Your task to perform on an android device: turn vacation reply on in the gmail app Image 0: 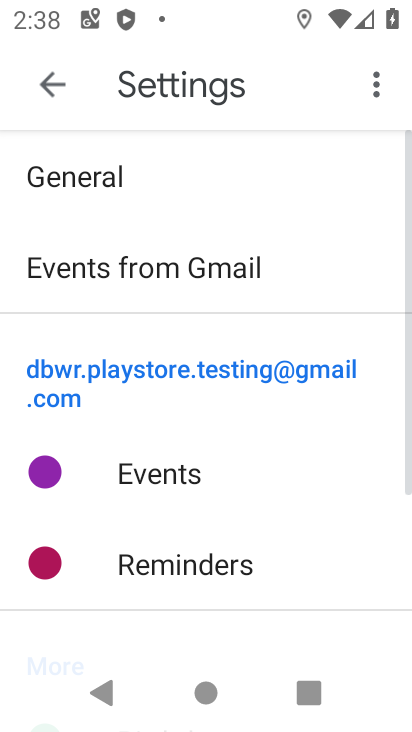
Step 0: click (50, 73)
Your task to perform on an android device: turn vacation reply on in the gmail app Image 1: 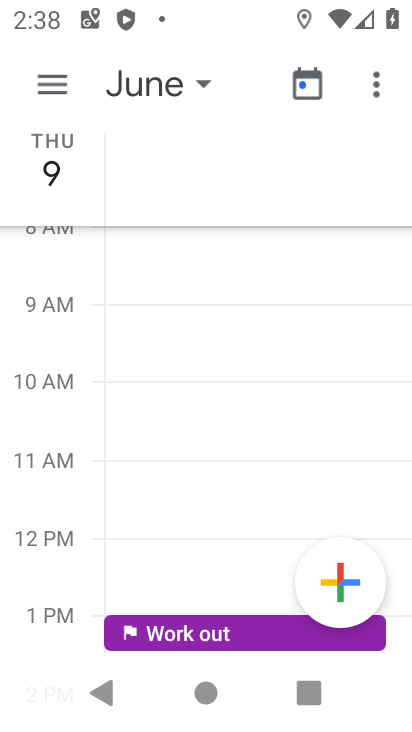
Step 1: press back button
Your task to perform on an android device: turn vacation reply on in the gmail app Image 2: 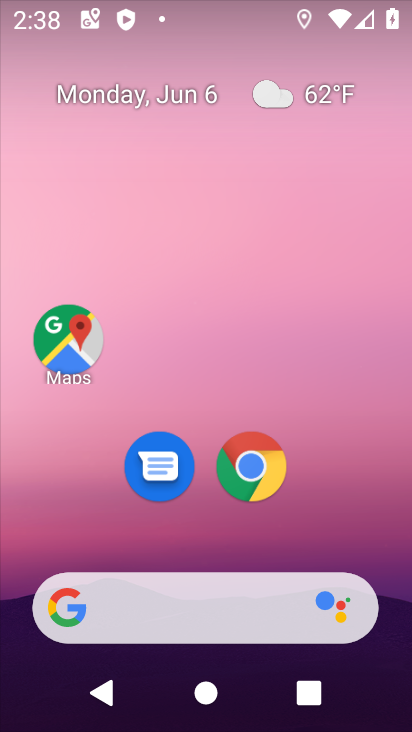
Step 2: drag from (255, 681) to (249, 84)
Your task to perform on an android device: turn vacation reply on in the gmail app Image 3: 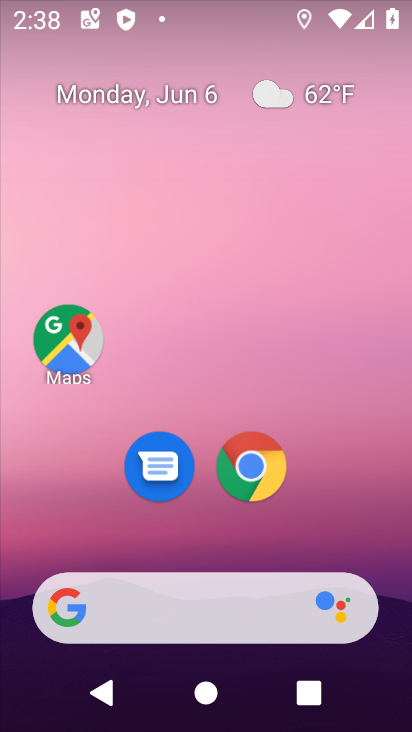
Step 3: drag from (270, 660) to (154, 142)
Your task to perform on an android device: turn vacation reply on in the gmail app Image 4: 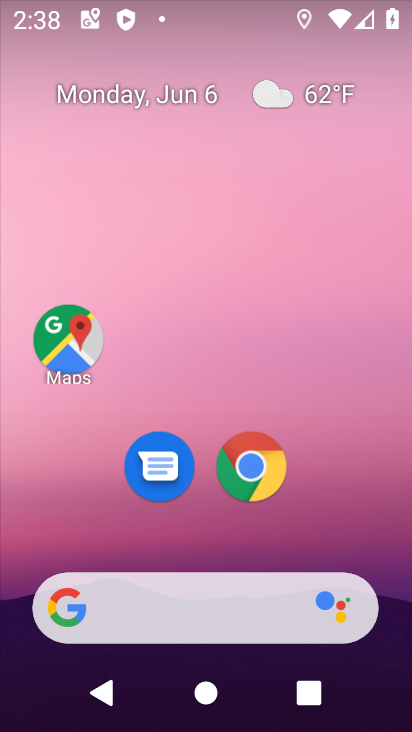
Step 4: drag from (253, 679) to (154, 110)
Your task to perform on an android device: turn vacation reply on in the gmail app Image 5: 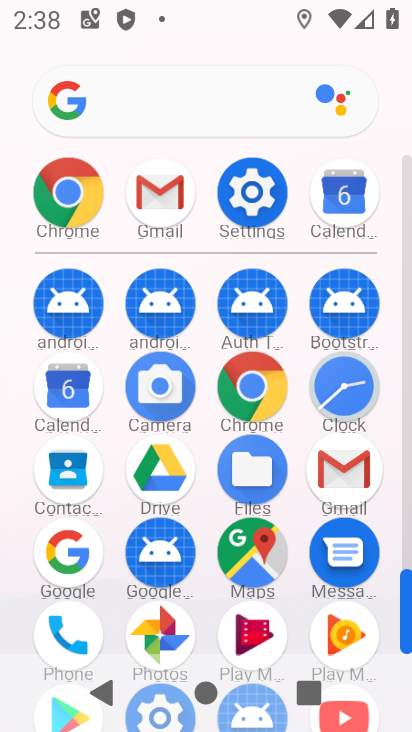
Step 5: click (140, 203)
Your task to perform on an android device: turn vacation reply on in the gmail app Image 6: 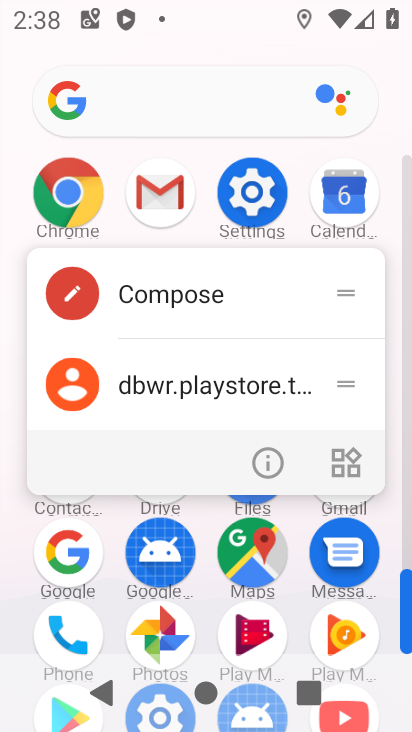
Step 6: click (158, 392)
Your task to perform on an android device: turn vacation reply on in the gmail app Image 7: 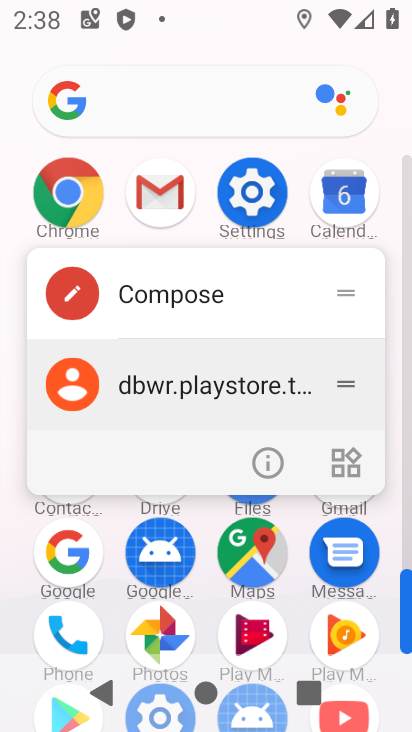
Step 7: click (159, 389)
Your task to perform on an android device: turn vacation reply on in the gmail app Image 8: 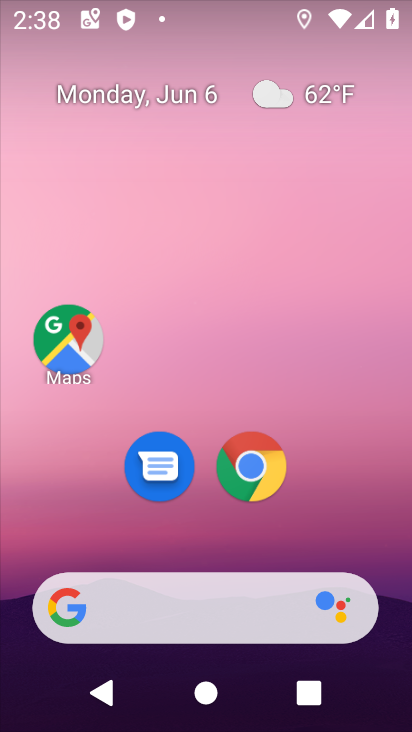
Step 8: drag from (257, 675) to (164, 77)
Your task to perform on an android device: turn vacation reply on in the gmail app Image 9: 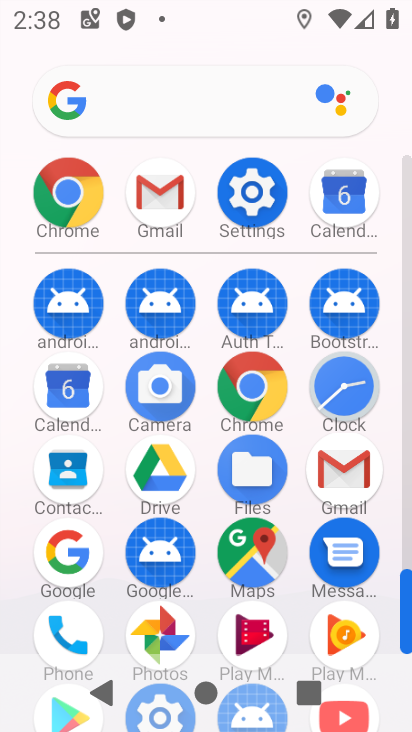
Step 9: click (149, 199)
Your task to perform on an android device: turn vacation reply on in the gmail app Image 10: 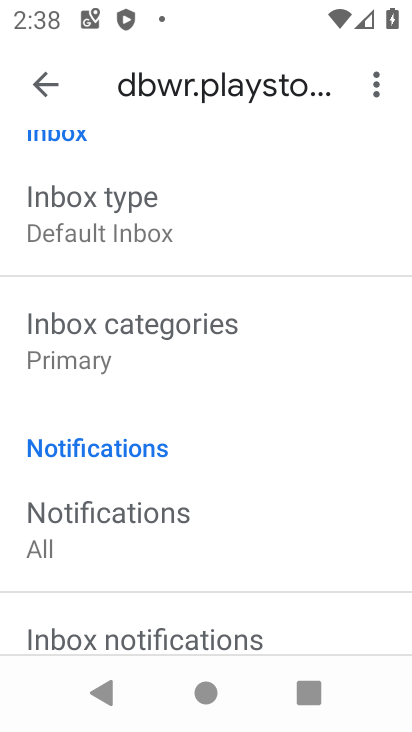
Step 10: drag from (182, 568) to (106, 28)
Your task to perform on an android device: turn vacation reply on in the gmail app Image 11: 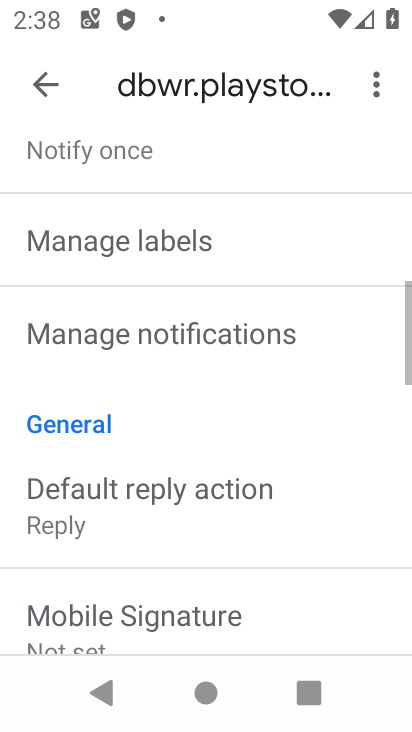
Step 11: drag from (143, 446) to (100, 123)
Your task to perform on an android device: turn vacation reply on in the gmail app Image 12: 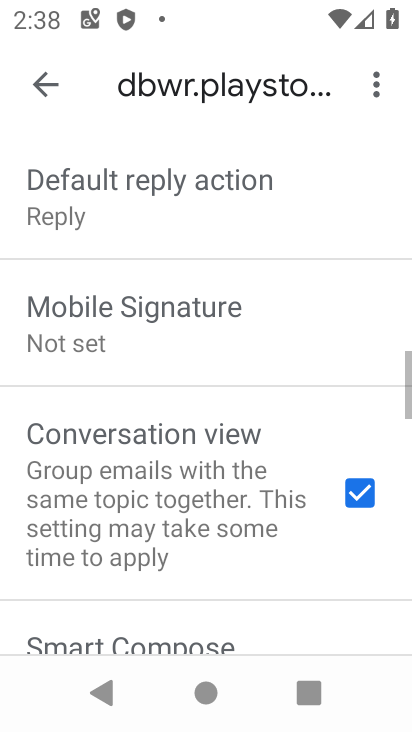
Step 12: drag from (134, 401) to (137, 170)
Your task to perform on an android device: turn vacation reply on in the gmail app Image 13: 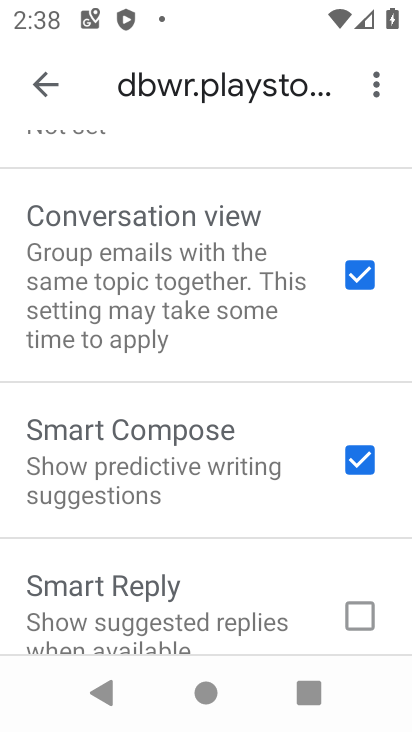
Step 13: drag from (149, 405) to (116, 155)
Your task to perform on an android device: turn vacation reply on in the gmail app Image 14: 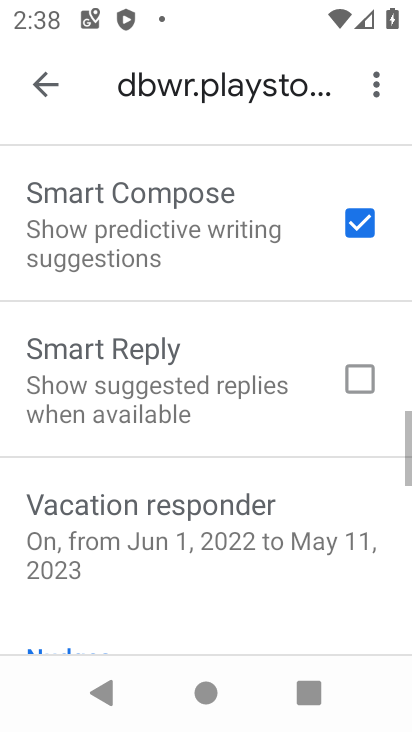
Step 14: drag from (184, 430) to (130, 66)
Your task to perform on an android device: turn vacation reply on in the gmail app Image 15: 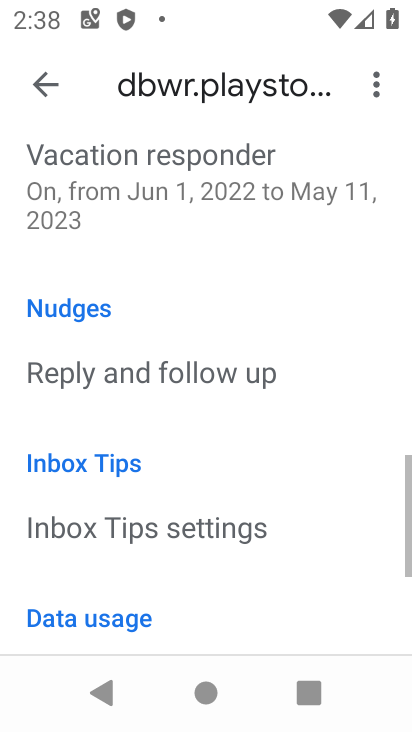
Step 15: drag from (161, 669) to (134, 274)
Your task to perform on an android device: turn vacation reply on in the gmail app Image 16: 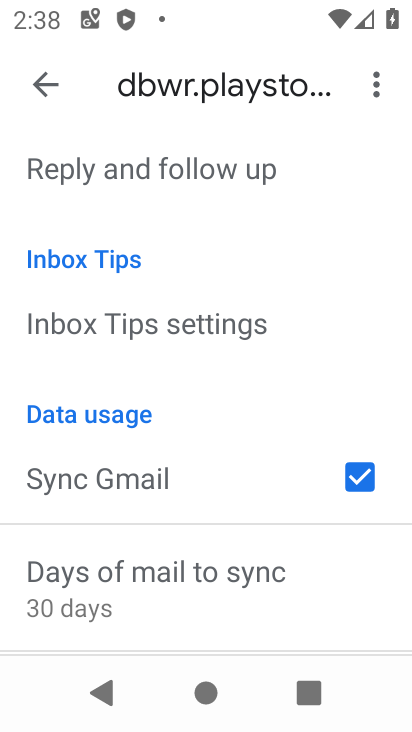
Step 16: drag from (167, 462) to (94, 109)
Your task to perform on an android device: turn vacation reply on in the gmail app Image 17: 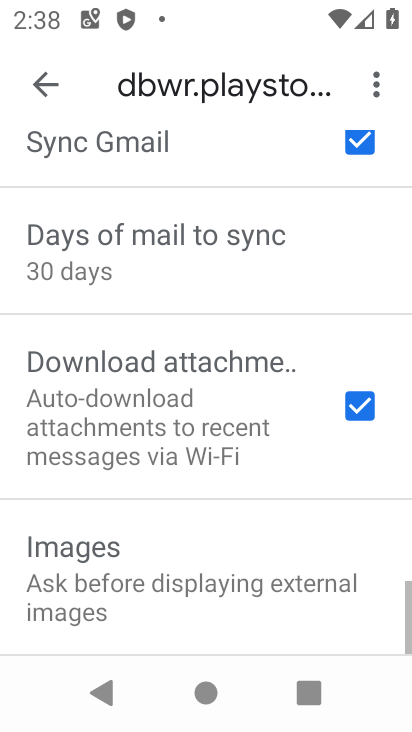
Step 17: drag from (178, 445) to (169, 266)
Your task to perform on an android device: turn vacation reply on in the gmail app Image 18: 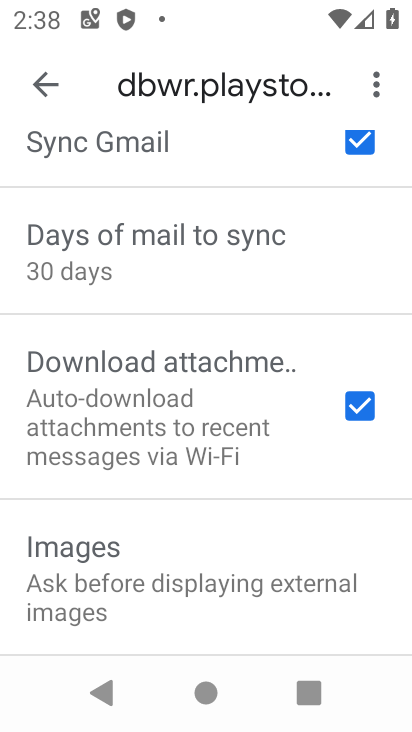
Step 18: drag from (201, 599) to (152, 235)
Your task to perform on an android device: turn vacation reply on in the gmail app Image 19: 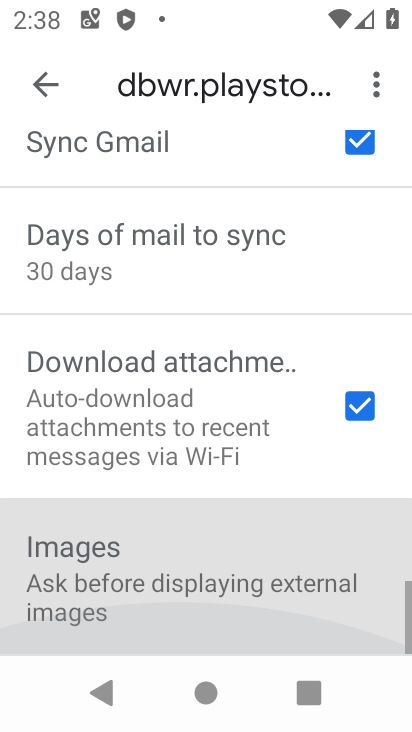
Step 19: drag from (191, 563) to (162, 255)
Your task to perform on an android device: turn vacation reply on in the gmail app Image 20: 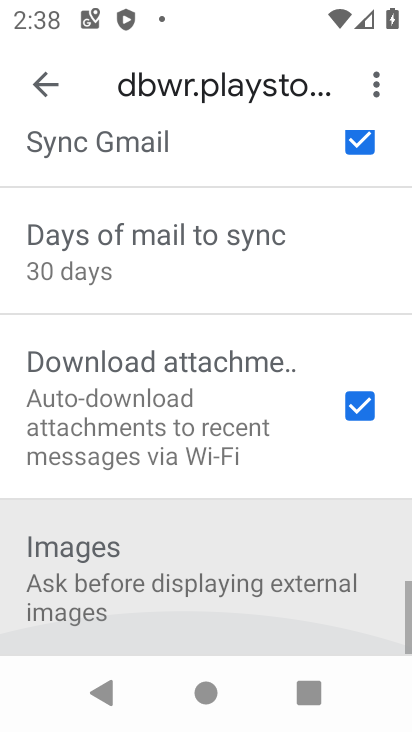
Step 20: drag from (164, 274) to (207, 613)
Your task to perform on an android device: turn vacation reply on in the gmail app Image 21: 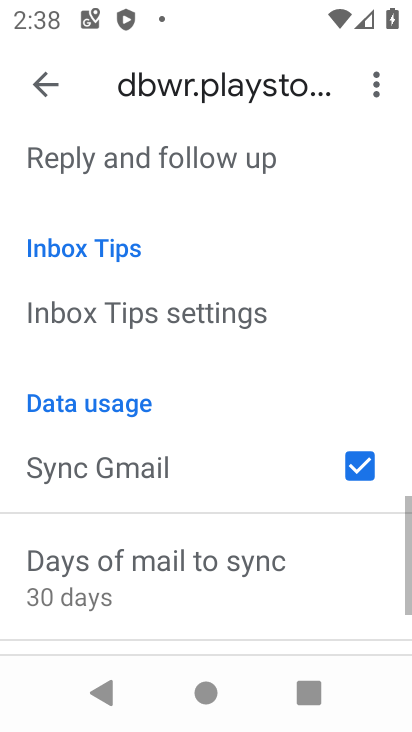
Step 21: drag from (128, 297) to (188, 526)
Your task to perform on an android device: turn vacation reply on in the gmail app Image 22: 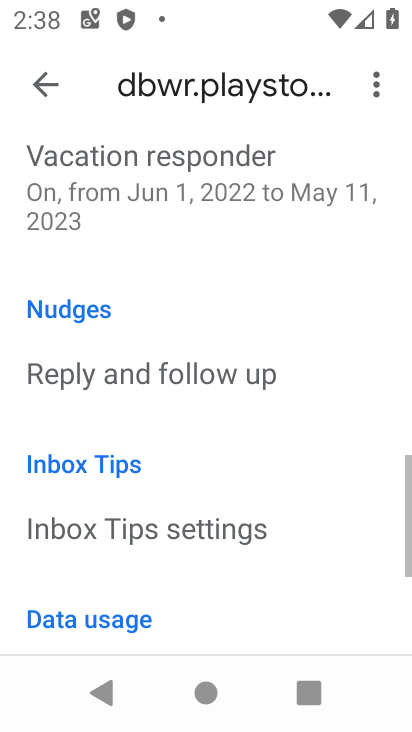
Step 22: drag from (143, 262) to (196, 489)
Your task to perform on an android device: turn vacation reply on in the gmail app Image 23: 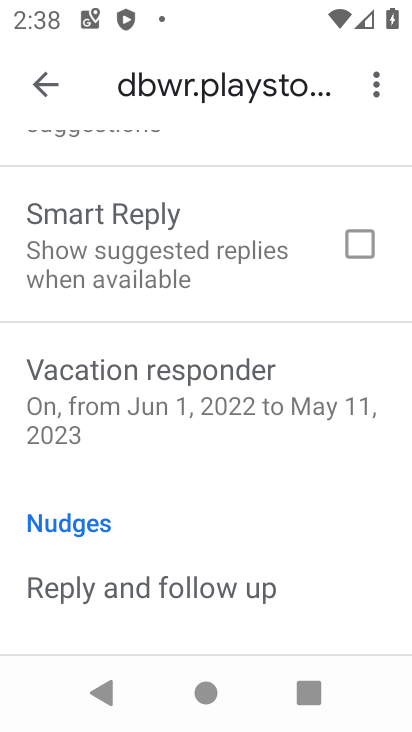
Step 23: click (279, 392)
Your task to perform on an android device: turn vacation reply on in the gmail app Image 24: 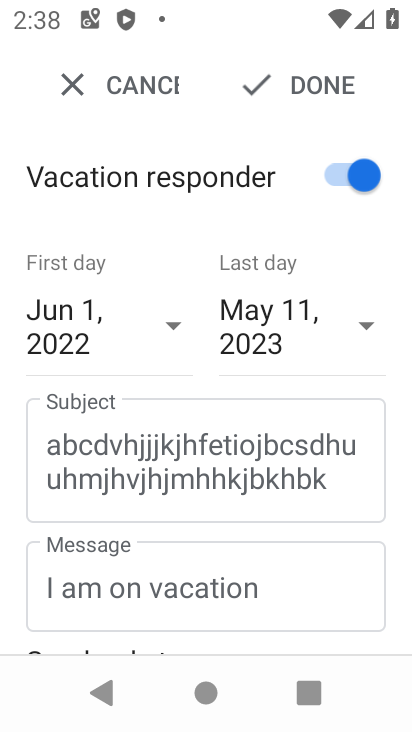
Step 24: task complete